Your task to perform on an android device: Open settings Image 0: 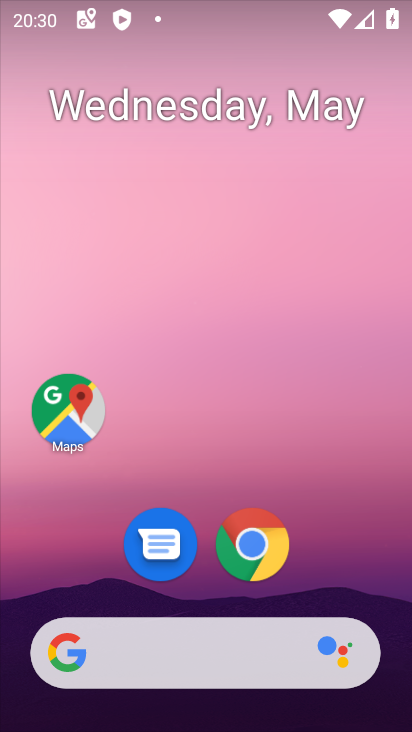
Step 0: drag from (210, 582) to (410, 239)
Your task to perform on an android device: Open settings Image 1: 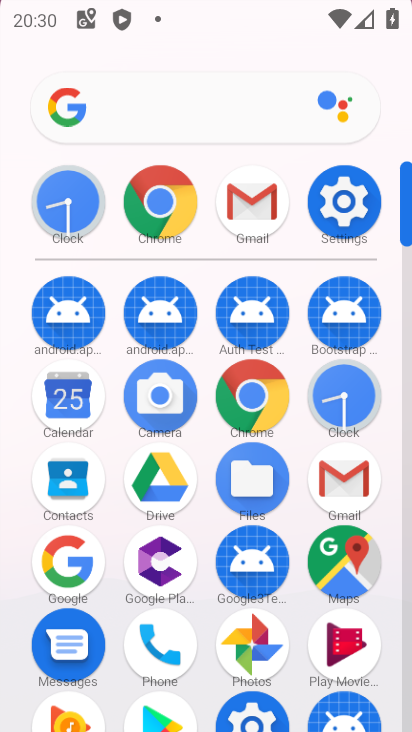
Step 1: click (347, 192)
Your task to perform on an android device: Open settings Image 2: 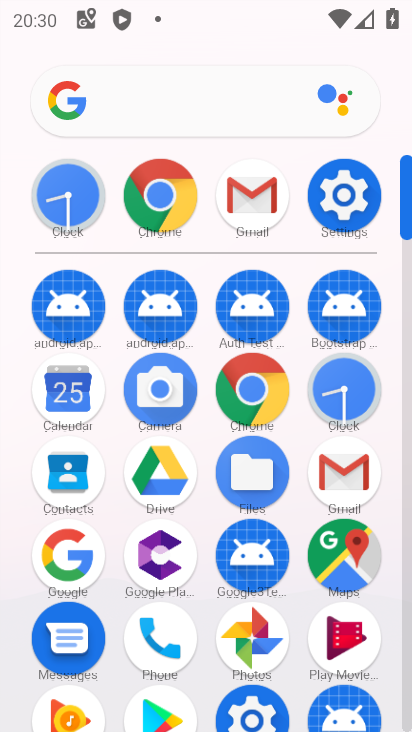
Step 2: click (346, 208)
Your task to perform on an android device: Open settings Image 3: 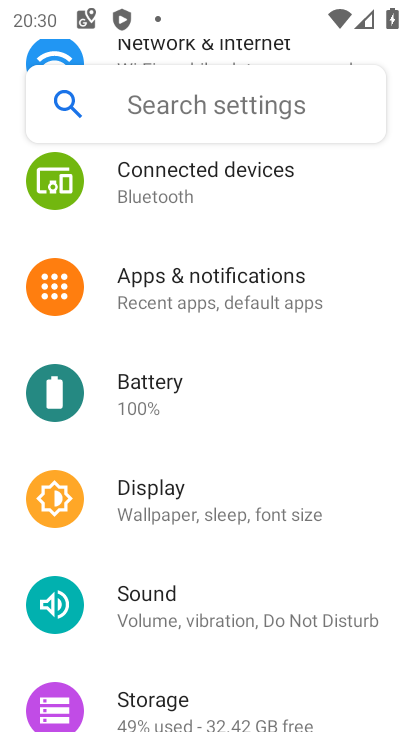
Step 3: task complete